Your task to perform on an android device: Open wifi settings Image 0: 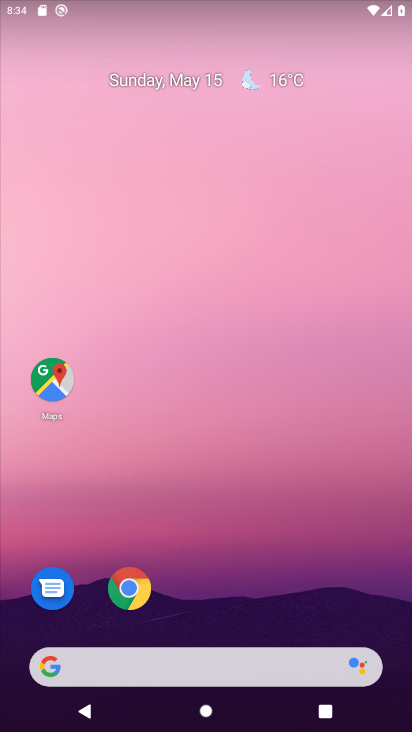
Step 0: drag from (272, 550) to (310, 79)
Your task to perform on an android device: Open wifi settings Image 1: 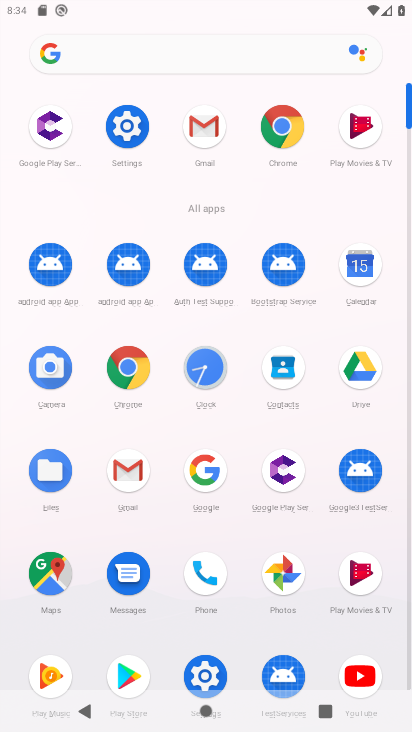
Step 1: click (126, 134)
Your task to perform on an android device: Open wifi settings Image 2: 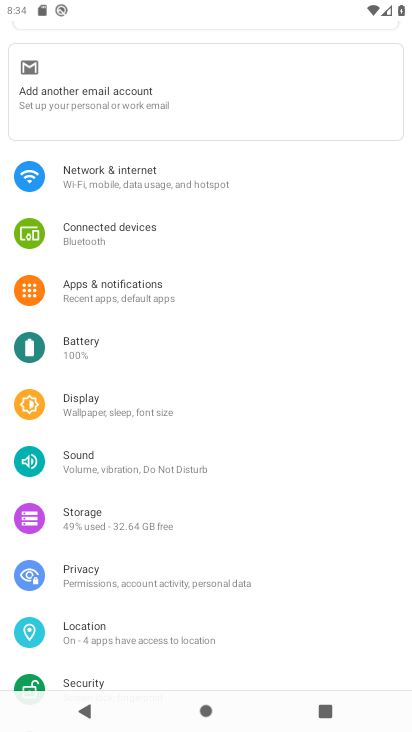
Step 2: drag from (137, 80) to (165, 214)
Your task to perform on an android device: Open wifi settings Image 3: 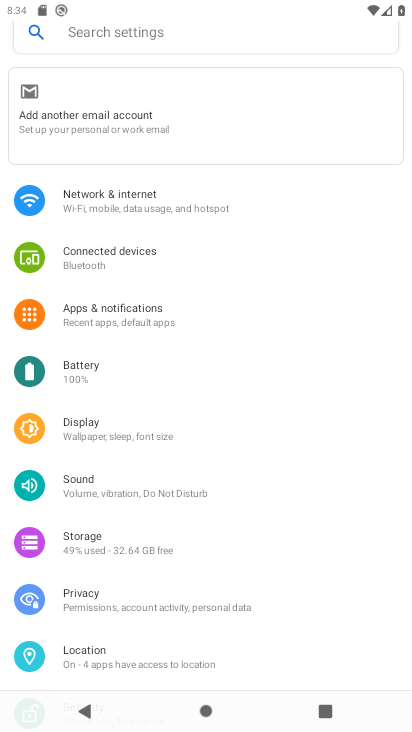
Step 3: click (164, 205)
Your task to perform on an android device: Open wifi settings Image 4: 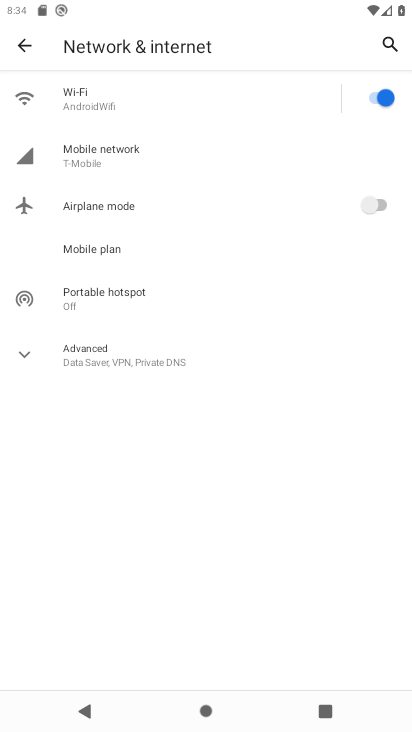
Step 4: click (135, 104)
Your task to perform on an android device: Open wifi settings Image 5: 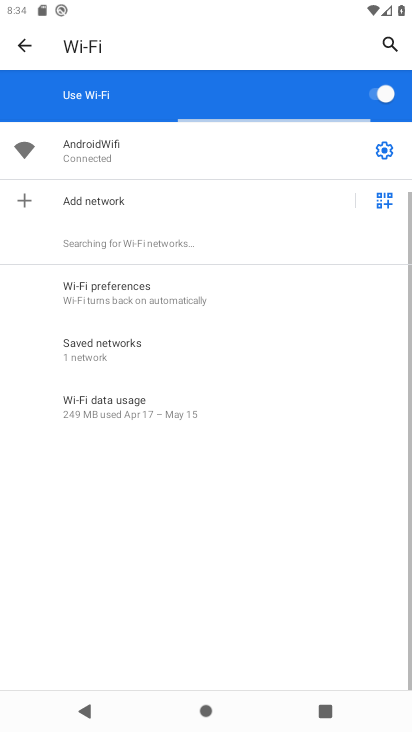
Step 5: task complete